Your task to perform on an android device: toggle javascript in the chrome app Image 0: 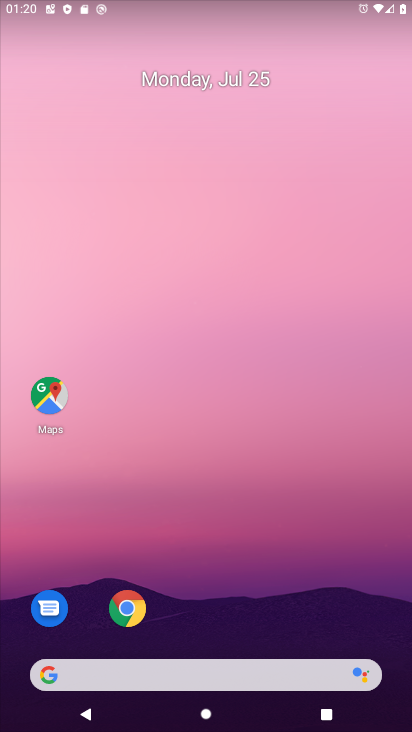
Step 0: click (123, 615)
Your task to perform on an android device: toggle javascript in the chrome app Image 1: 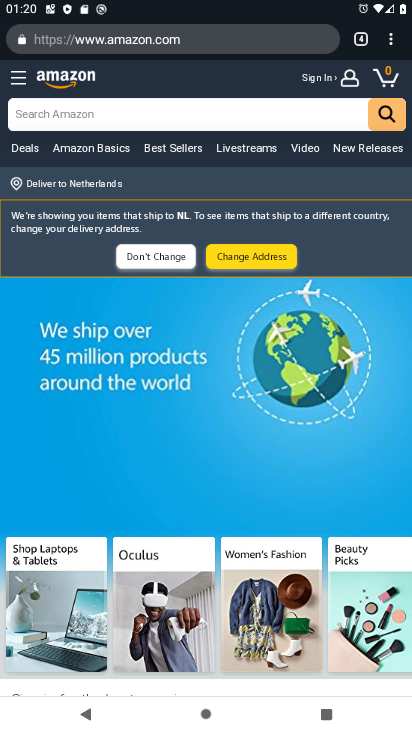
Step 1: drag from (391, 42) to (272, 465)
Your task to perform on an android device: toggle javascript in the chrome app Image 2: 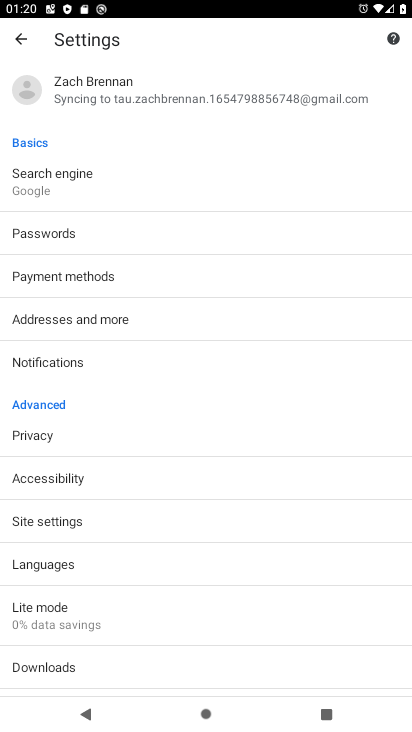
Step 2: click (84, 517)
Your task to perform on an android device: toggle javascript in the chrome app Image 3: 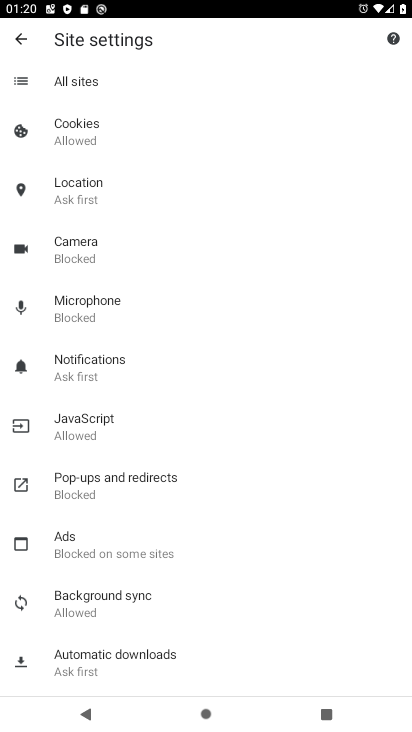
Step 3: click (98, 433)
Your task to perform on an android device: toggle javascript in the chrome app Image 4: 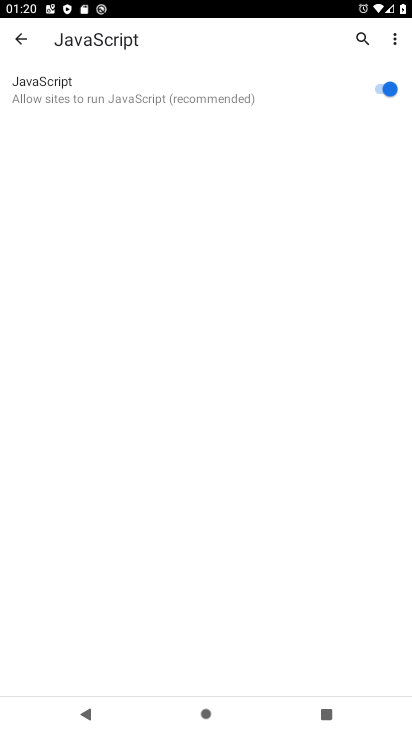
Step 4: click (379, 90)
Your task to perform on an android device: toggle javascript in the chrome app Image 5: 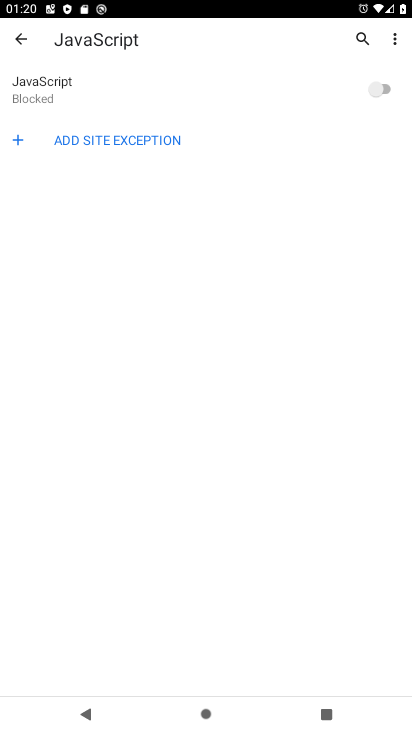
Step 5: task complete